Your task to perform on an android device: Go to settings Image 0: 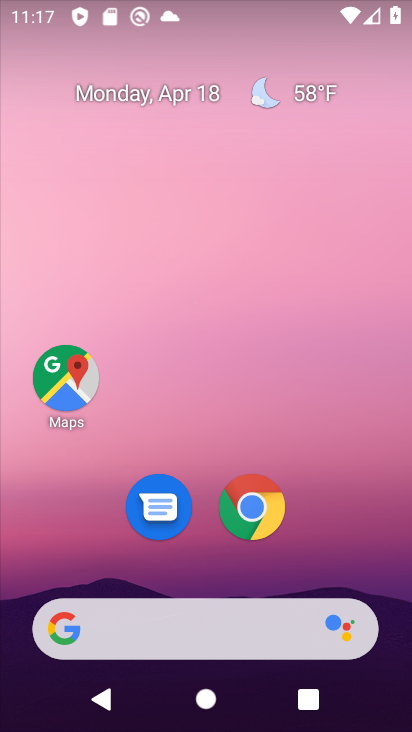
Step 0: click (221, 101)
Your task to perform on an android device: Go to settings Image 1: 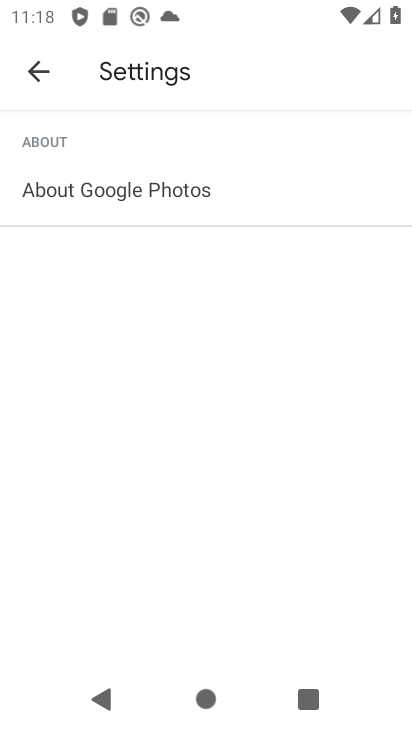
Step 1: press back button
Your task to perform on an android device: Go to settings Image 2: 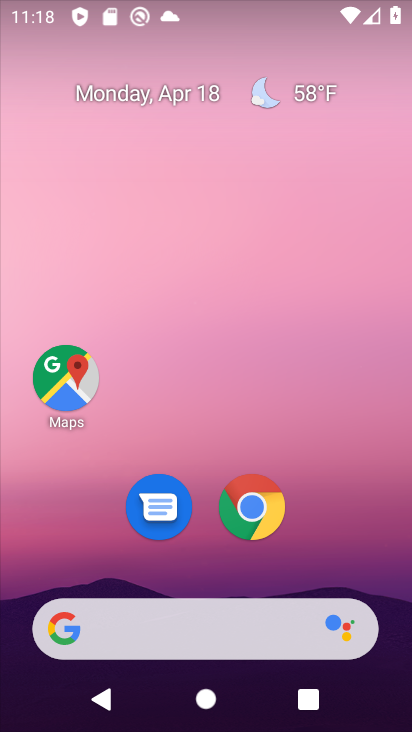
Step 2: drag from (179, 591) to (184, 141)
Your task to perform on an android device: Go to settings Image 3: 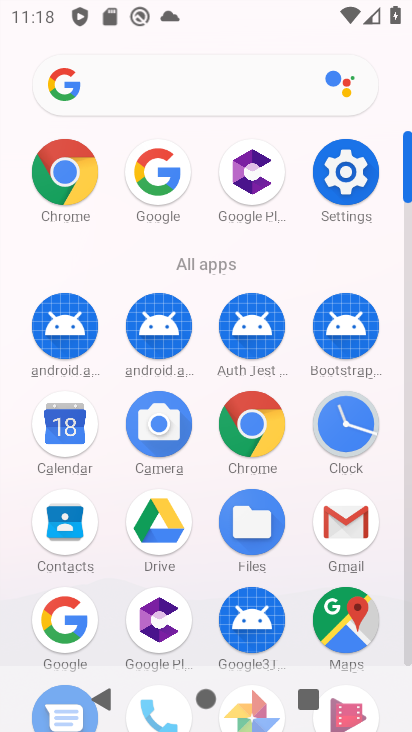
Step 3: click (356, 182)
Your task to perform on an android device: Go to settings Image 4: 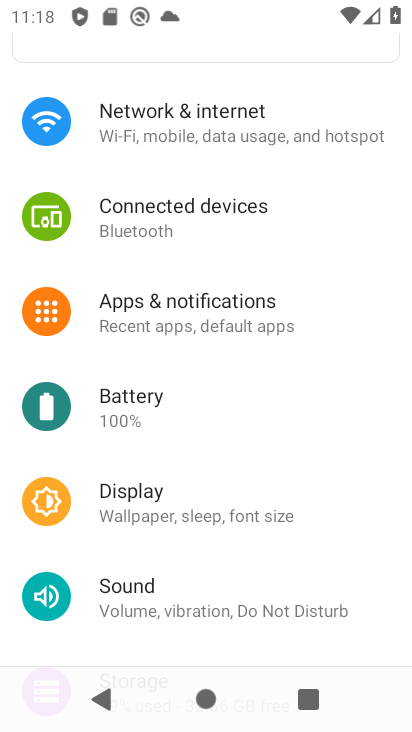
Step 4: task complete